Your task to perform on an android device: Go to privacy settings Image 0: 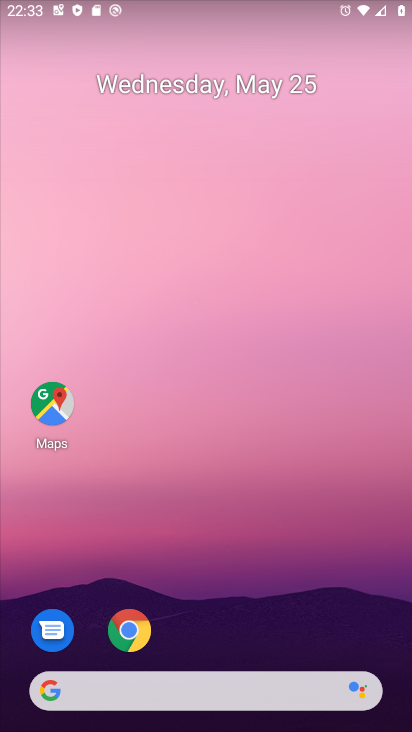
Step 0: drag from (221, 652) to (203, 197)
Your task to perform on an android device: Go to privacy settings Image 1: 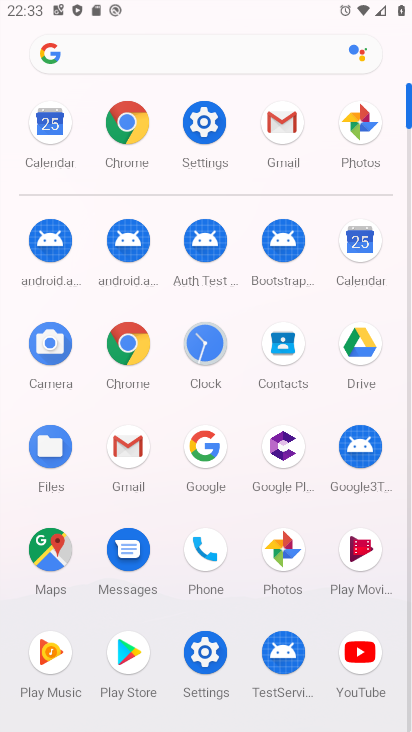
Step 1: click (214, 120)
Your task to perform on an android device: Go to privacy settings Image 2: 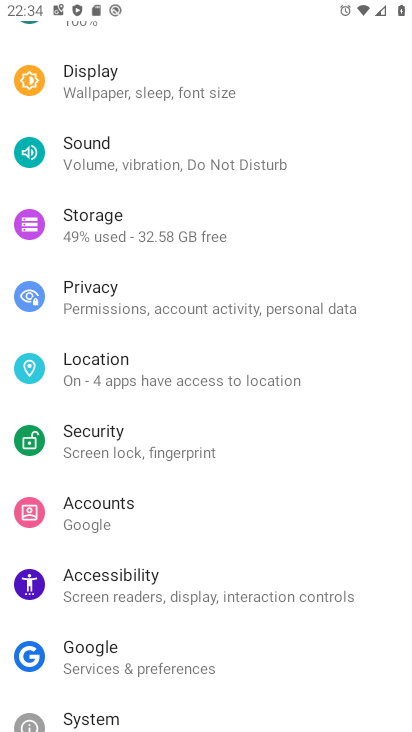
Step 2: click (160, 287)
Your task to perform on an android device: Go to privacy settings Image 3: 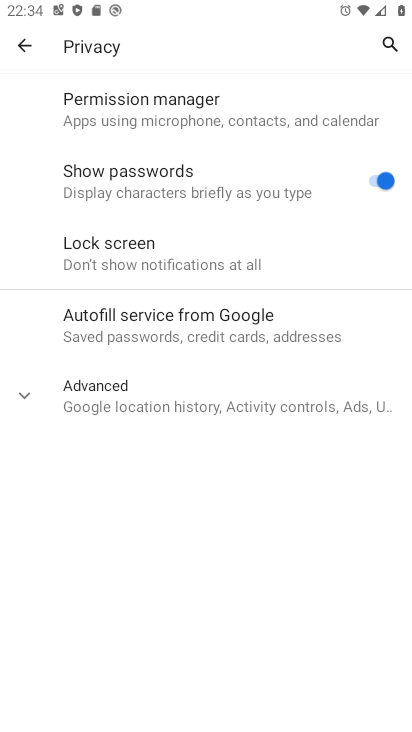
Step 3: task complete